Your task to perform on an android device: Go to display settings Image 0: 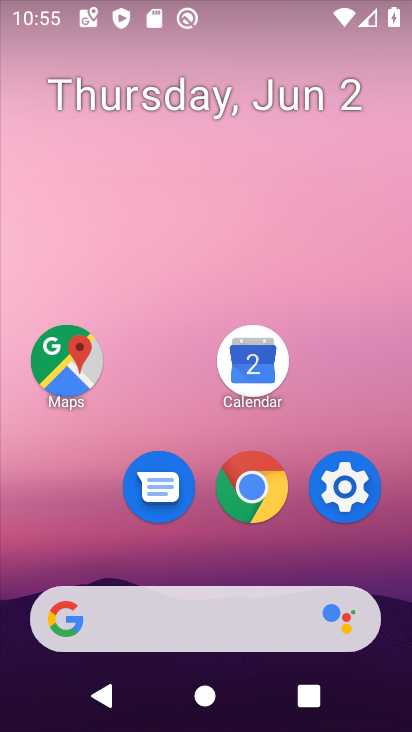
Step 0: drag from (306, 651) to (249, 81)
Your task to perform on an android device: Go to display settings Image 1: 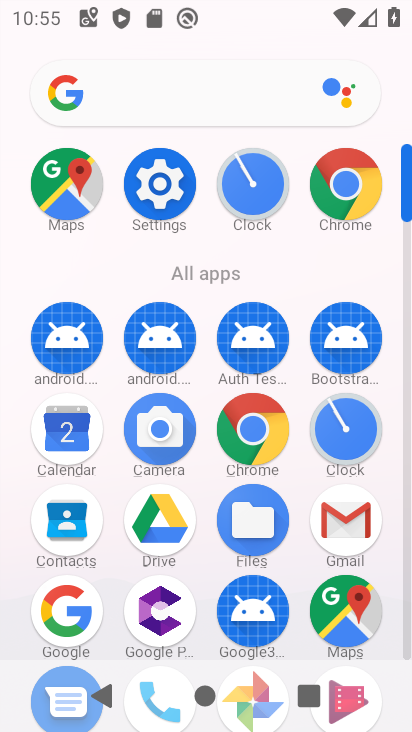
Step 1: click (142, 192)
Your task to perform on an android device: Go to display settings Image 2: 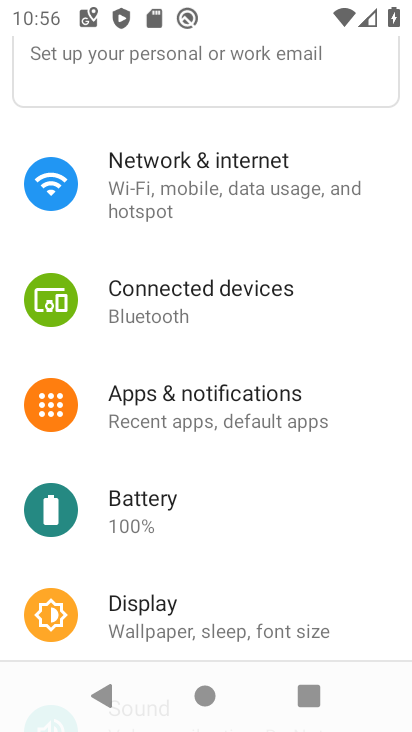
Step 2: click (173, 598)
Your task to perform on an android device: Go to display settings Image 3: 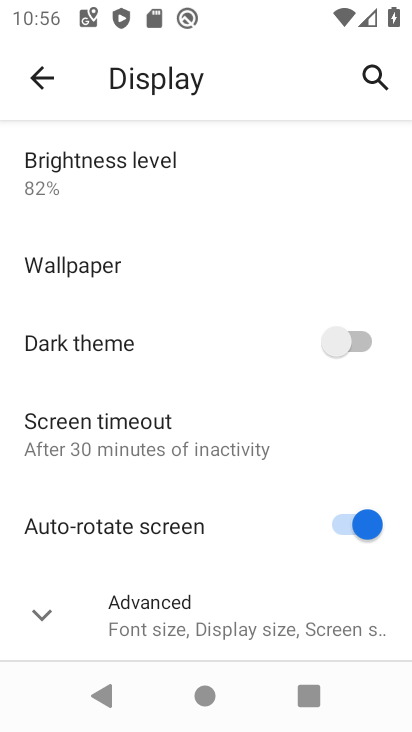
Step 3: task complete